Your task to perform on an android device: toggle javascript in the chrome app Image 0: 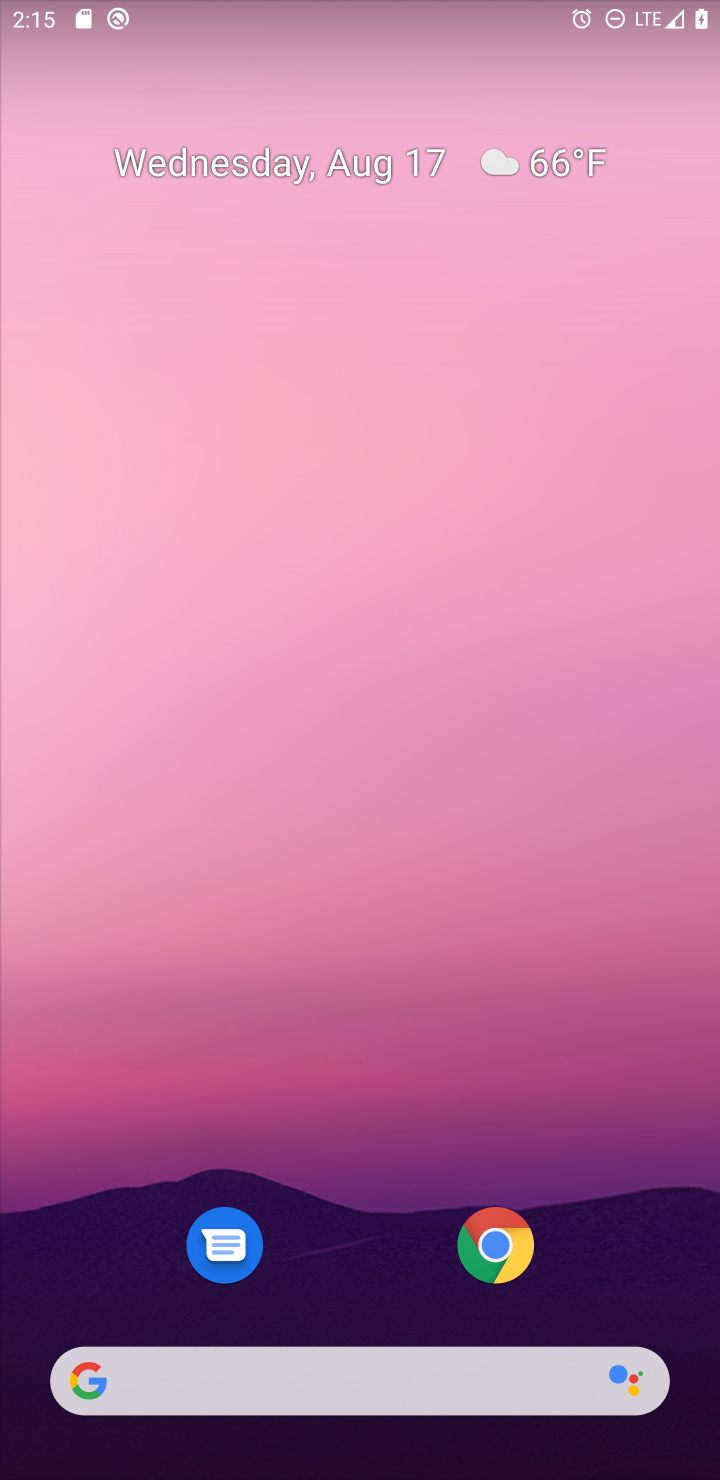
Step 0: click (495, 1242)
Your task to perform on an android device: toggle javascript in the chrome app Image 1: 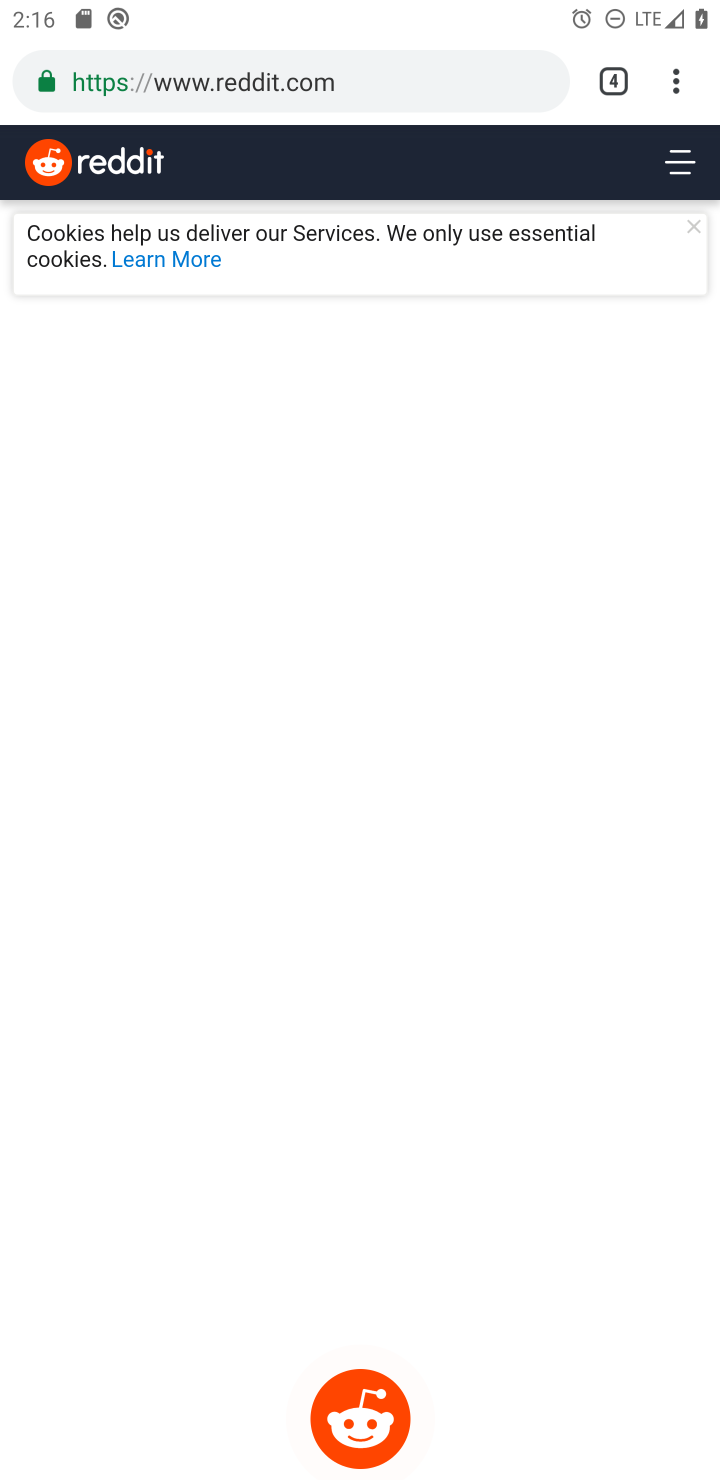
Step 1: click (672, 90)
Your task to perform on an android device: toggle javascript in the chrome app Image 2: 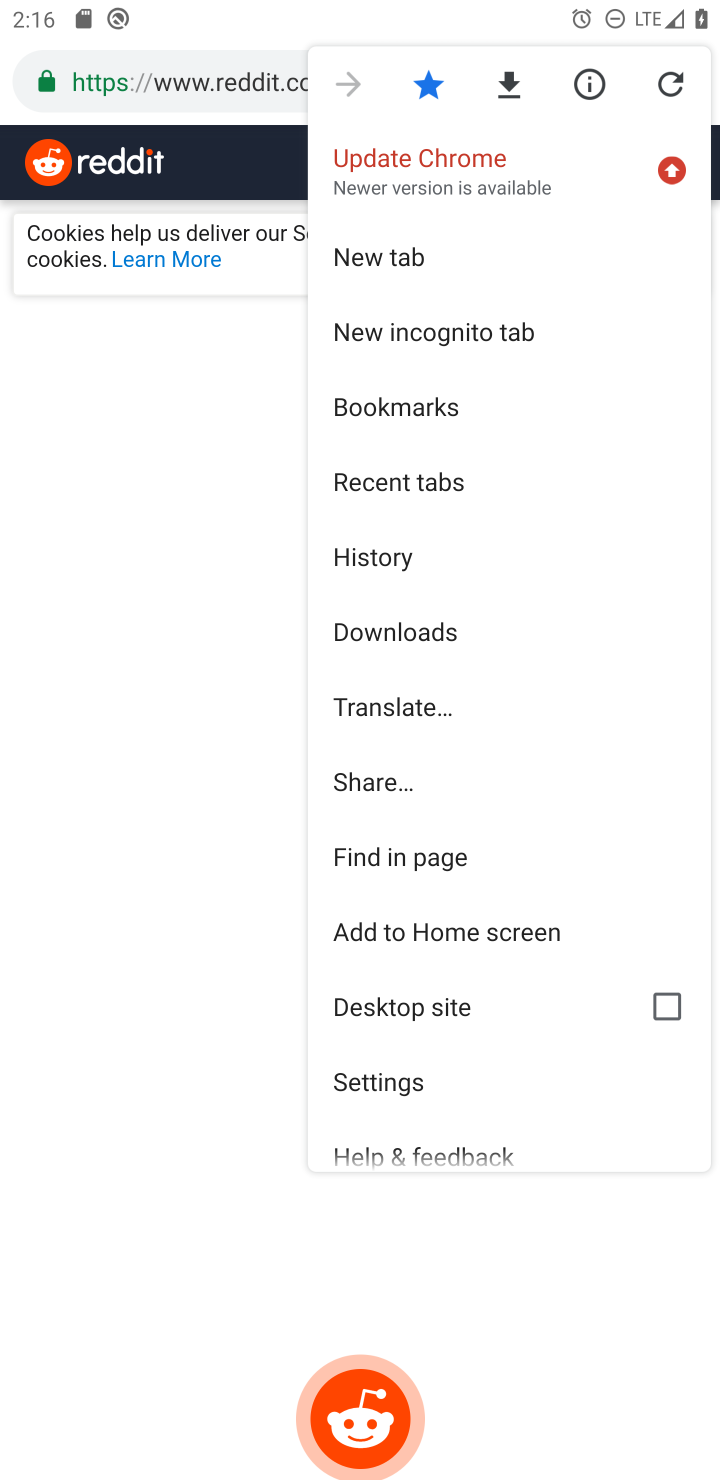
Step 2: click (361, 1072)
Your task to perform on an android device: toggle javascript in the chrome app Image 3: 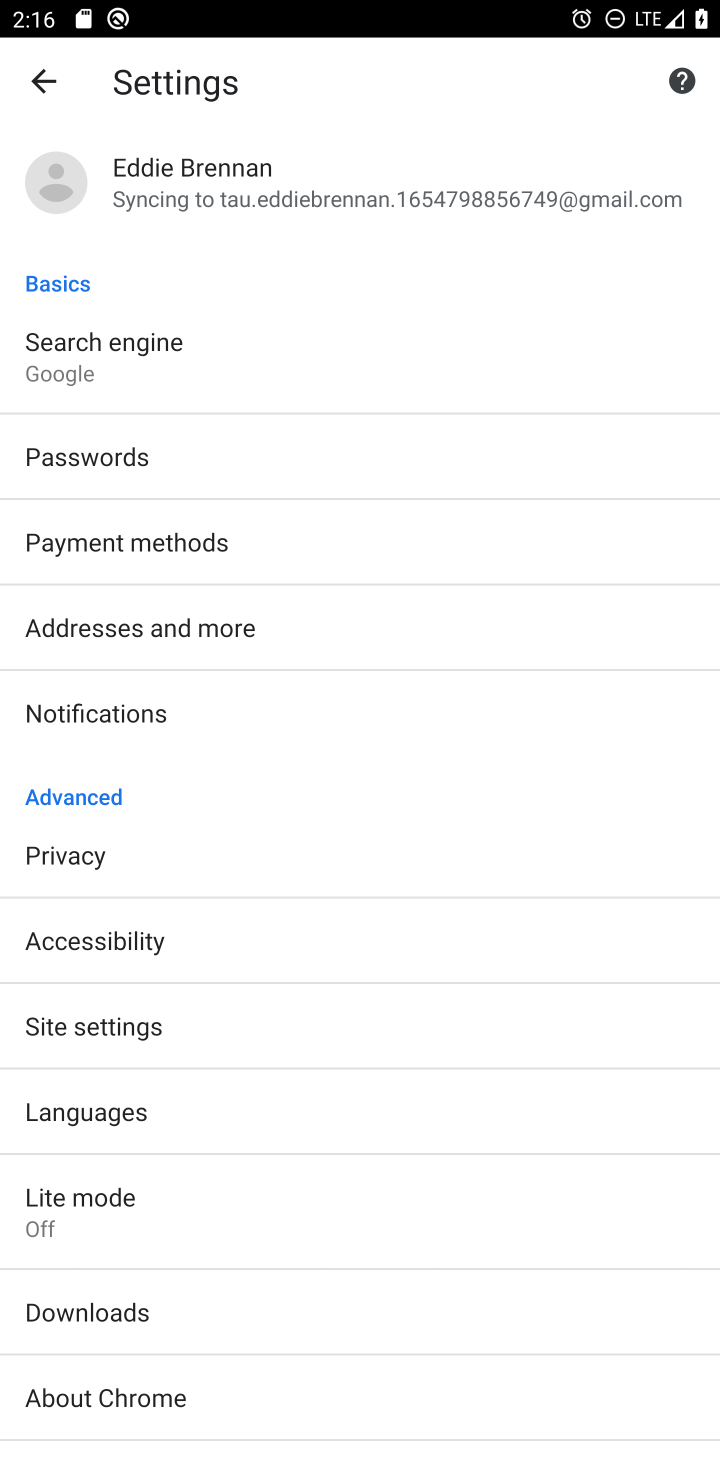
Step 3: click (85, 1023)
Your task to perform on an android device: toggle javascript in the chrome app Image 4: 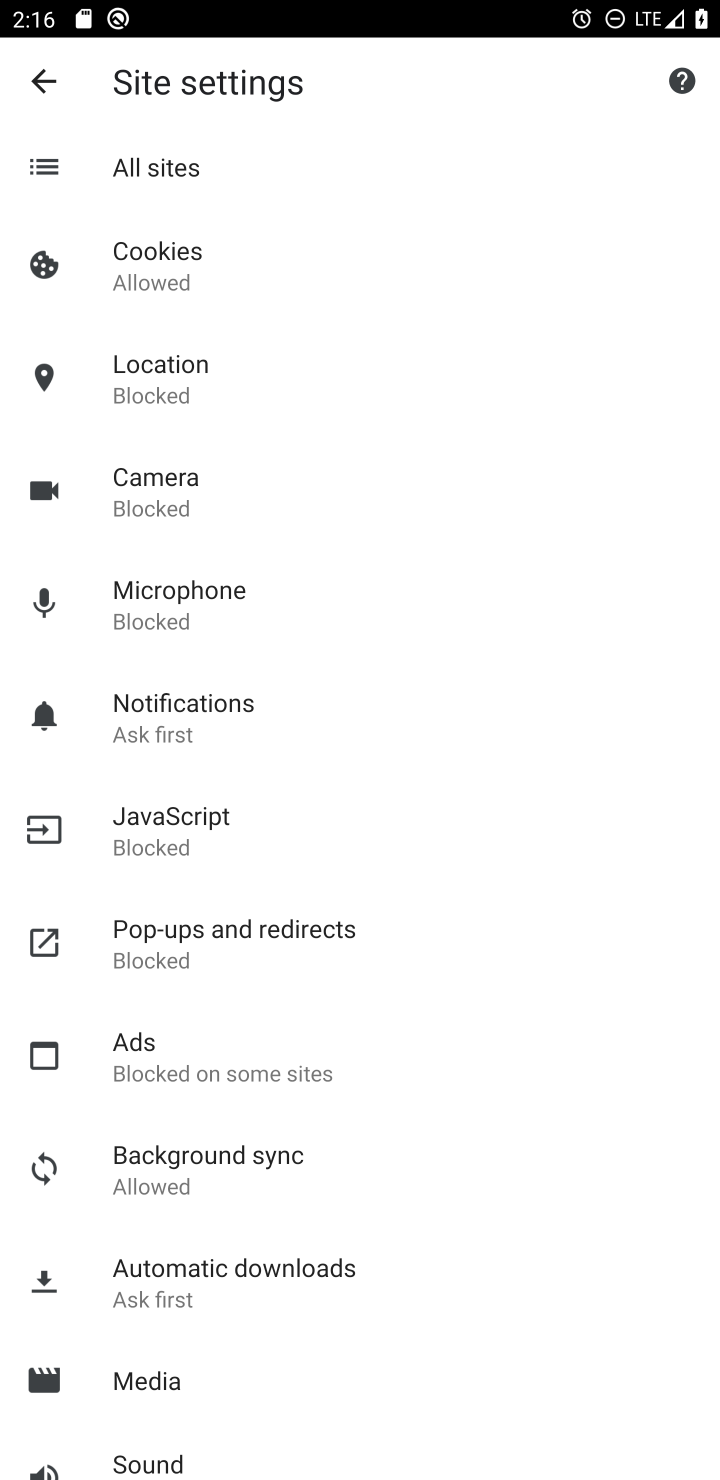
Step 4: click (158, 825)
Your task to perform on an android device: toggle javascript in the chrome app Image 5: 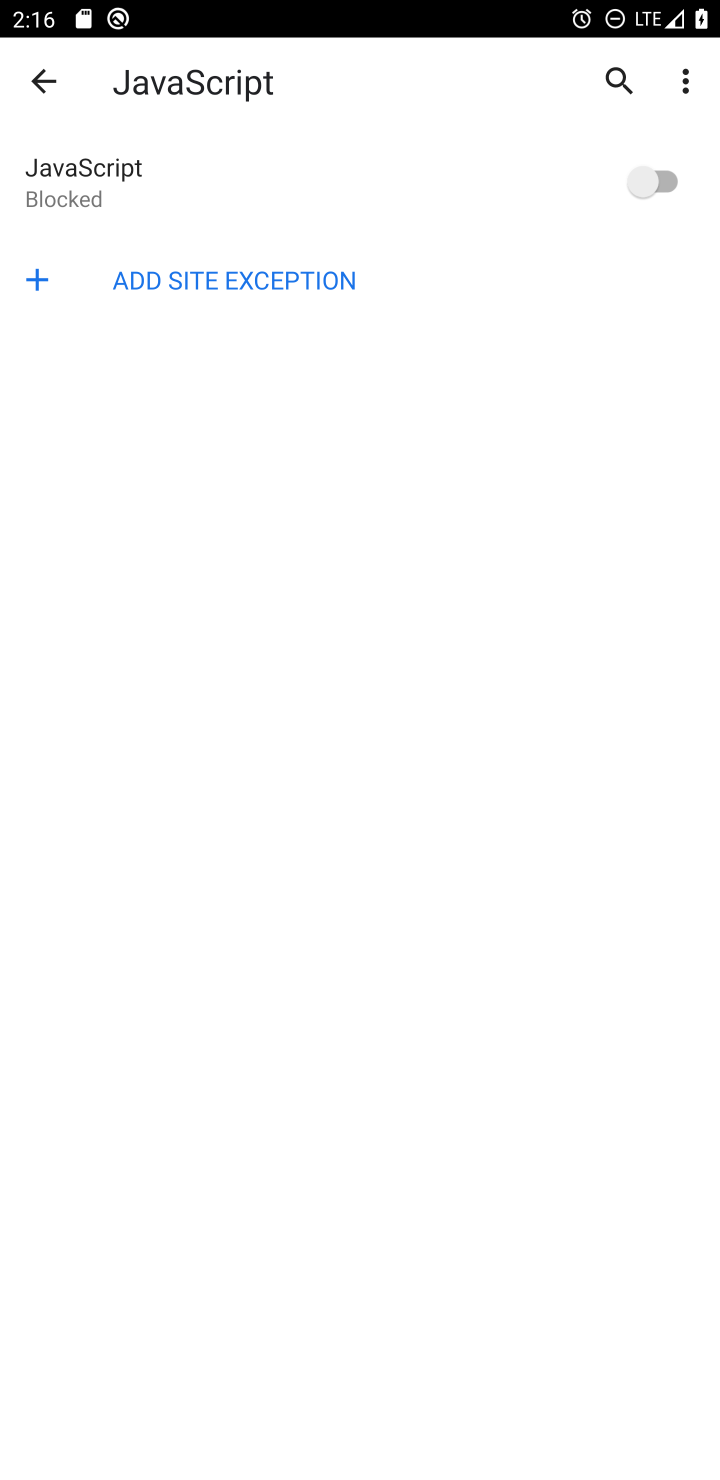
Step 5: click (668, 178)
Your task to perform on an android device: toggle javascript in the chrome app Image 6: 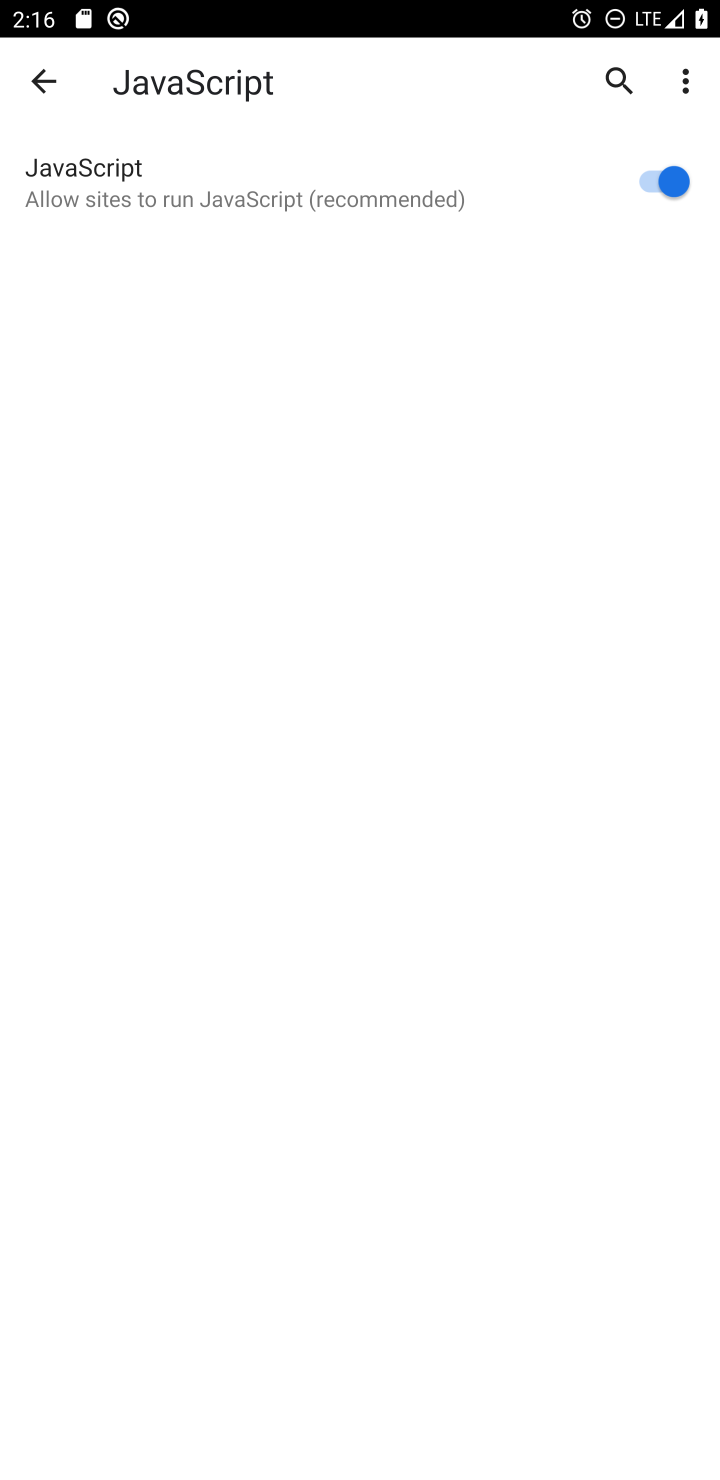
Step 6: task complete